Your task to perform on an android device: When is my next appointment? Image 0: 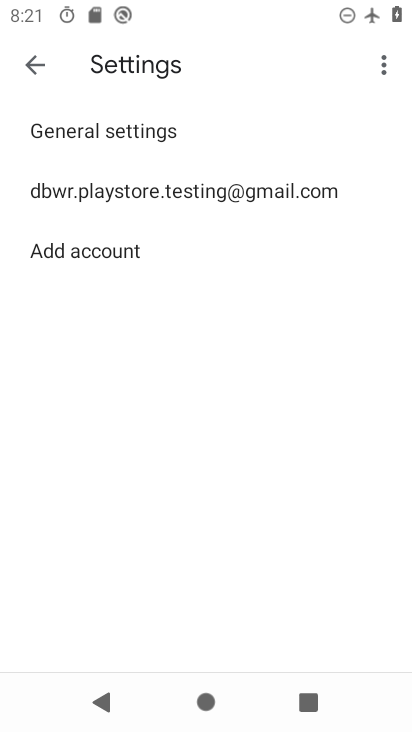
Step 0: press home button
Your task to perform on an android device: When is my next appointment? Image 1: 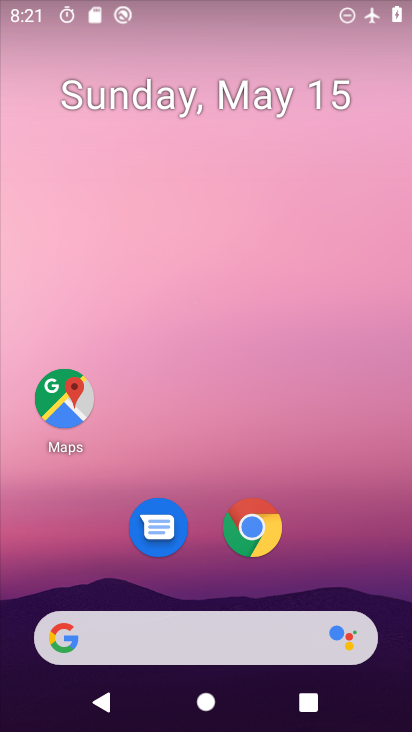
Step 1: drag from (214, 572) to (255, 123)
Your task to perform on an android device: When is my next appointment? Image 2: 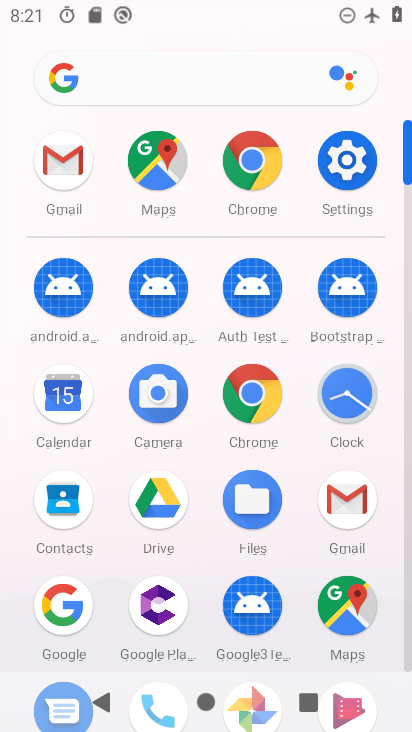
Step 2: click (56, 412)
Your task to perform on an android device: When is my next appointment? Image 3: 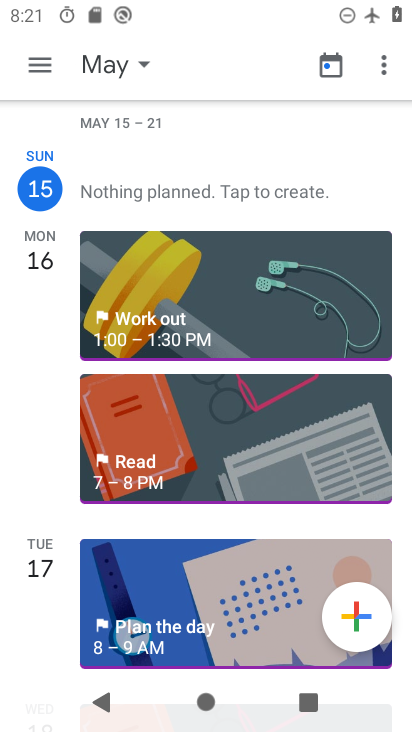
Step 3: task complete